Your task to perform on an android device: toggle priority inbox in the gmail app Image 0: 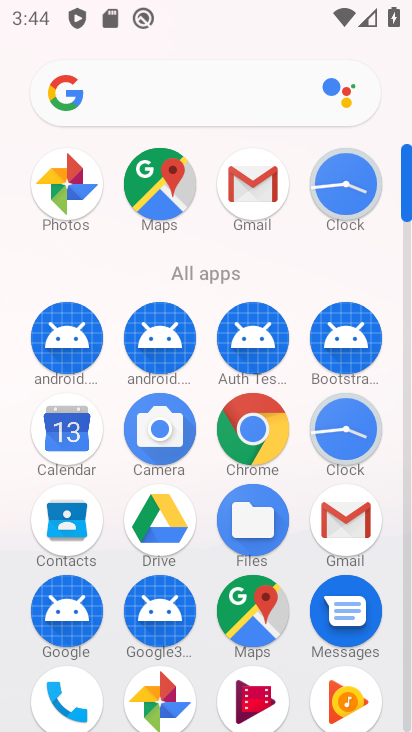
Step 0: press home button
Your task to perform on an android device: toggle priority inbox in the gmail app Image 1: 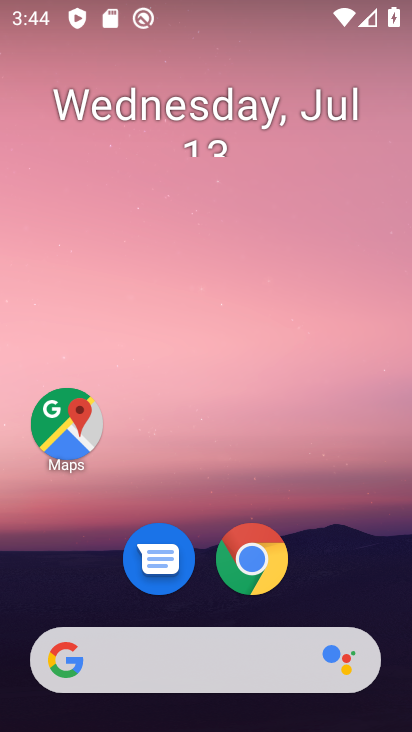
Step 1: drag from (258, 674) to (290, 58)
Your task to perform on an android device: toggle priority inbox in the gmail app Image 2: 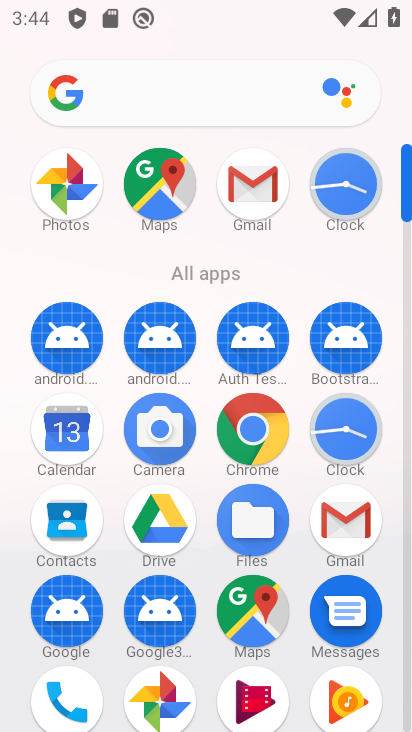
Step 2: click (258, 196)
Your task to perform on an android device: toggle priority inbox in the gmail app Image 3: 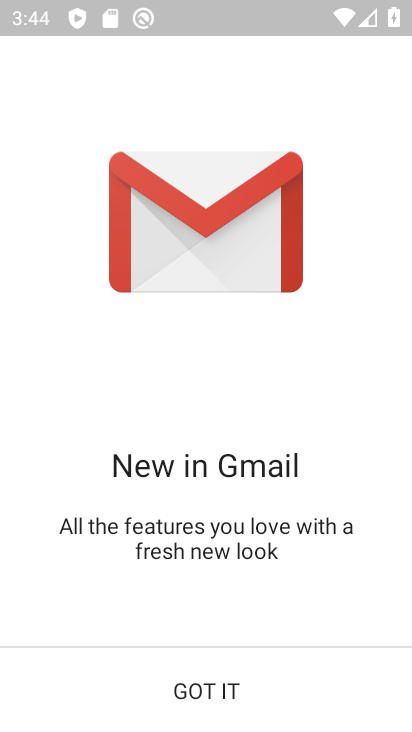
Step 3: click (239, 699)
Your task to perform on an android device: toggle priority inbox in the gmail app Image 4: 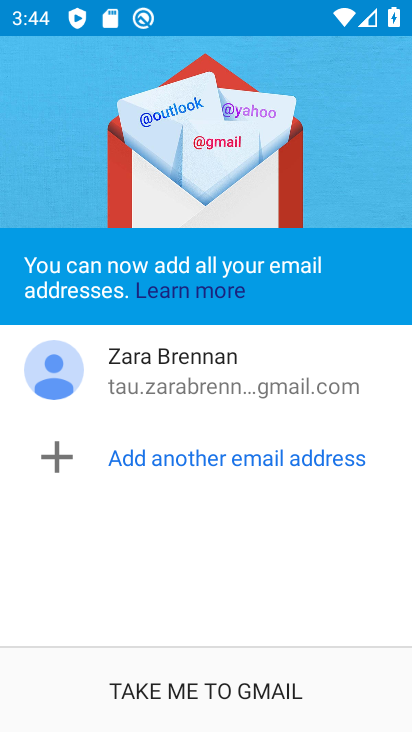
Step 4: click (243, 699)
Your task to perform on an android device: toggle priority inbox in the gmail app Image 5: 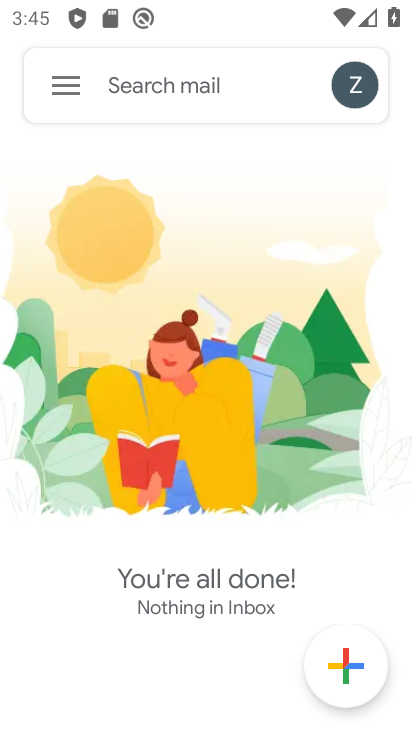
Step 5: click (59, 72)
Your task to perform on an android device: toggle priority inbox in the gmail app Image 6: 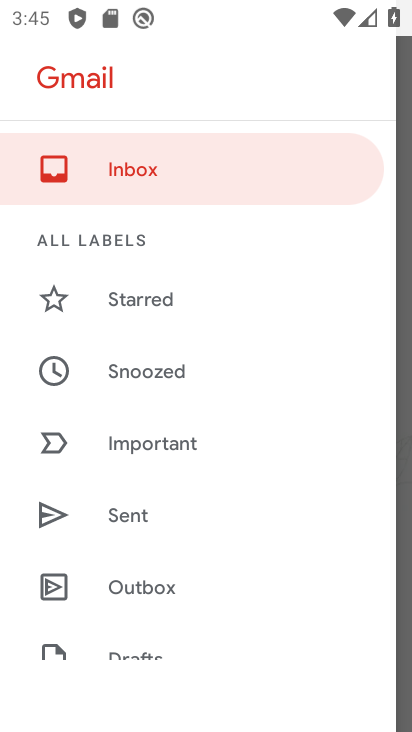
Step 6: drag from (135, 616) to (229, 295)
Your task to perform on an android device: toggle priority inbox in the gmail app Image 7: 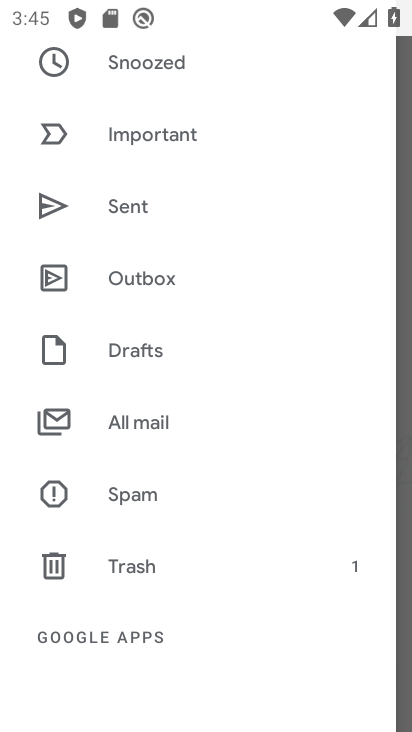
Step 7: drag from (174, 513) to (230, 52)
Your task to perform on an android device: toggle priority inbox in the gmail app Image 8: 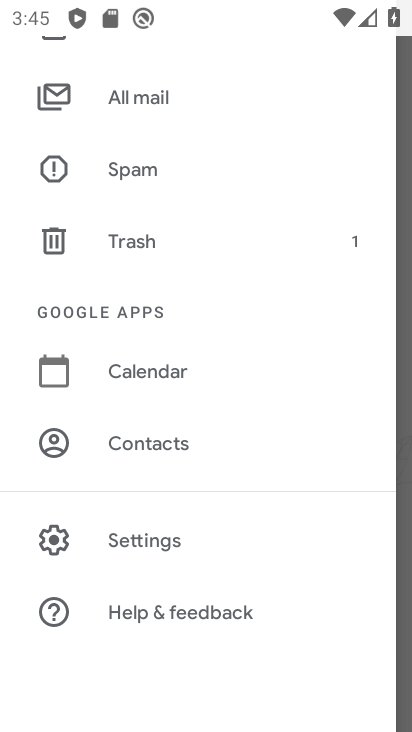
Step 8: click (130, 549)
Your task to perform on an android device: toggle priority inbox in the gmail app Image 9: 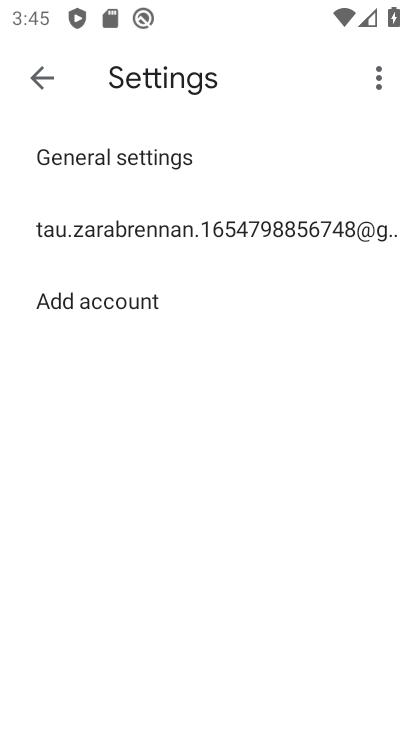
Step 9: click (100, 250)
Your task to perform on an android device: toggle priority inbox in the gmail app Image 10: 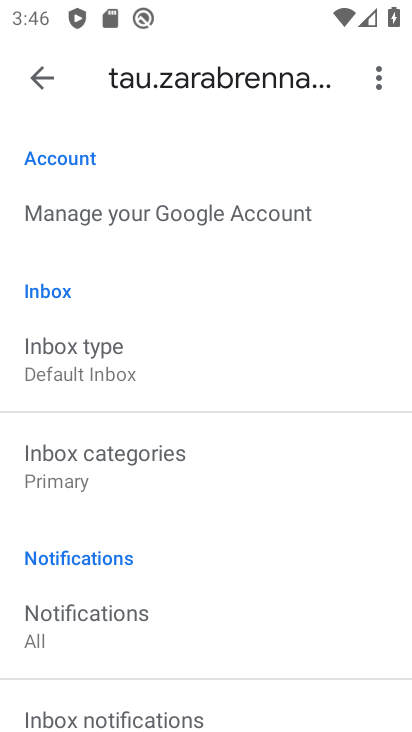
Step 10: click (95, 357)
Your task to perform on an android device: toggle priority inbox in the gmail app Image 11: 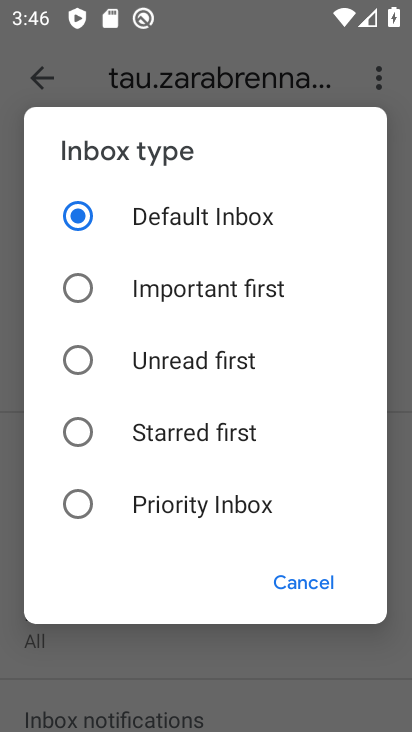
Step 11: click (89, 510)
Your task to perform on an android device: toggle priority inbox in the gmail app Image 12: 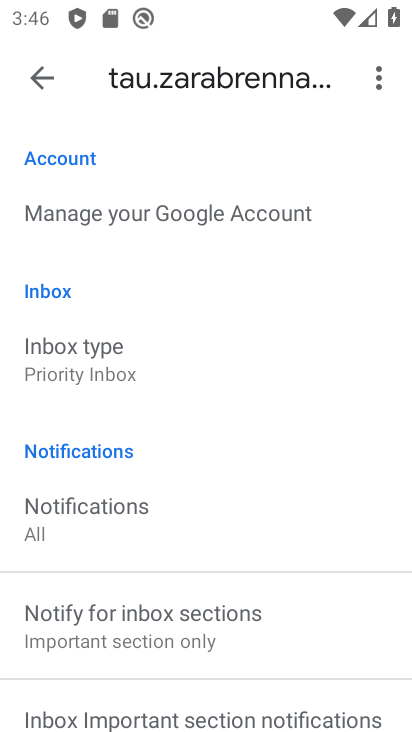
Step 12: task complete